Your task to perform on an android device: turn off location history Image 0: 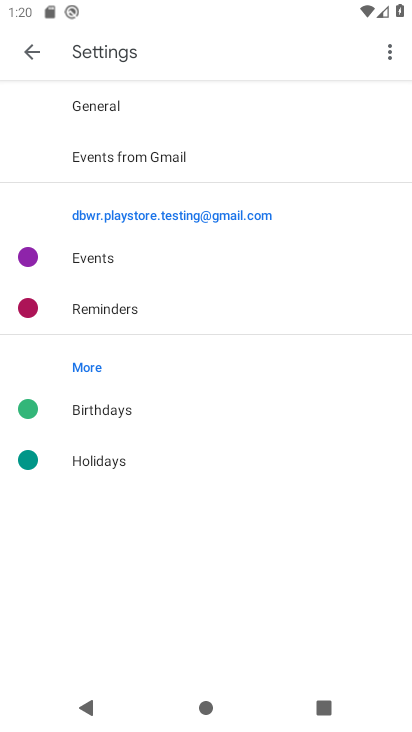
Step 0: press home button
Your task to perform on an android device: turn off location history Image 1: 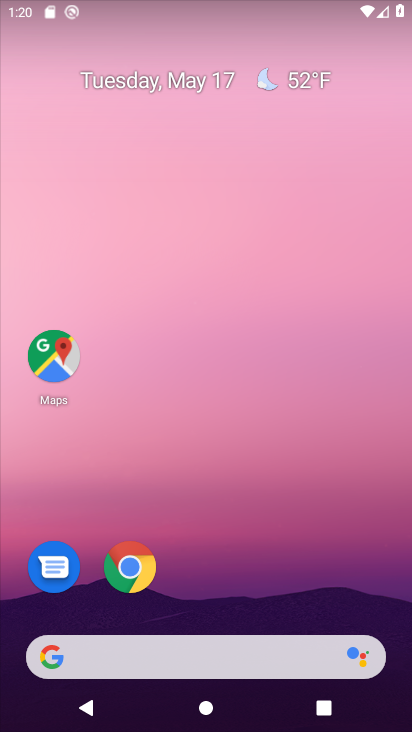
Step 1: drag from (238, 425) to (267, 0)
Your task to perform on an android device: turn off location history Image 2: 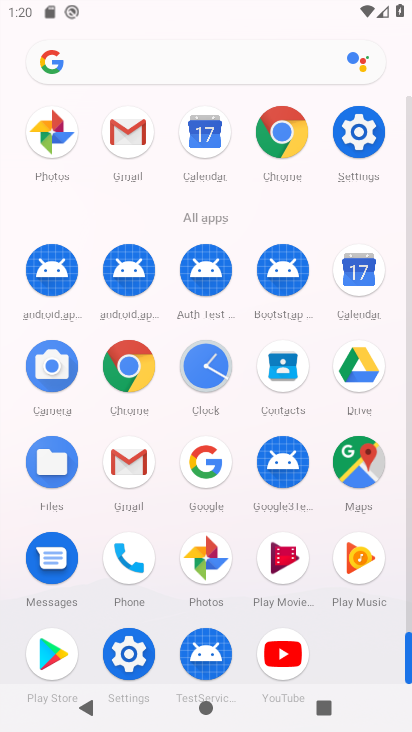
Step 2: click (354, 134)
Your task to perform on an android device: turn off location history Image 3: 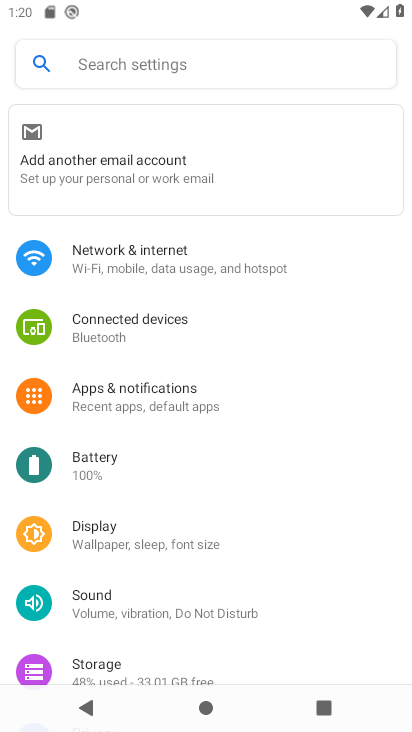
Step 3: drag from (165, 376) to (183, 324)
Your task to perform on an android device: turn off location history Image 4: 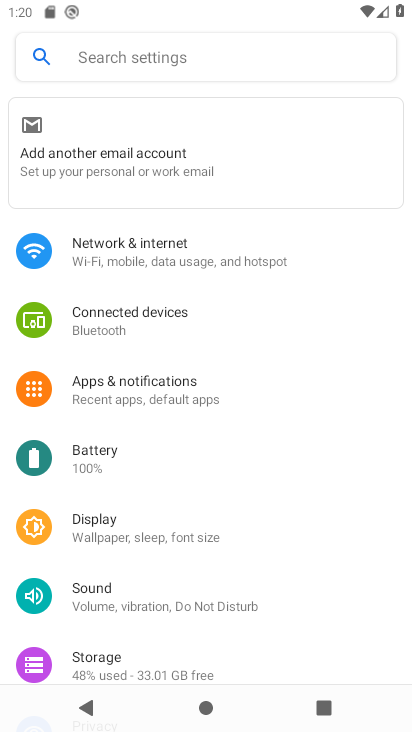
Step 4: drag from (102, 328) to (102, 159)
Your task to perform on an android device: turn off location history Image 5: 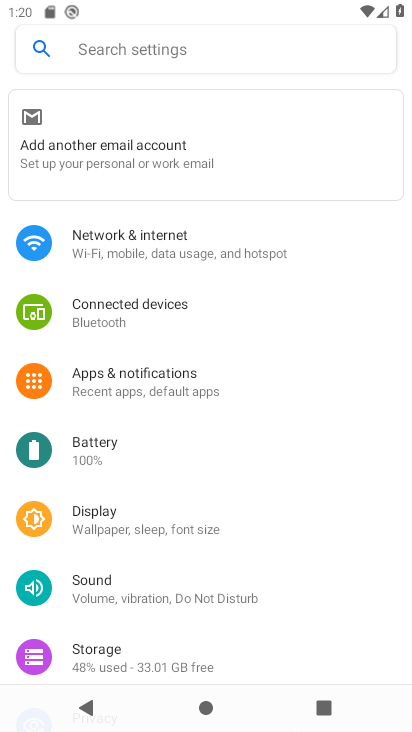
Step 5: drag from (136, 294) to (149, 210)
Your task to perform on an android device: turn off location history Image 6: 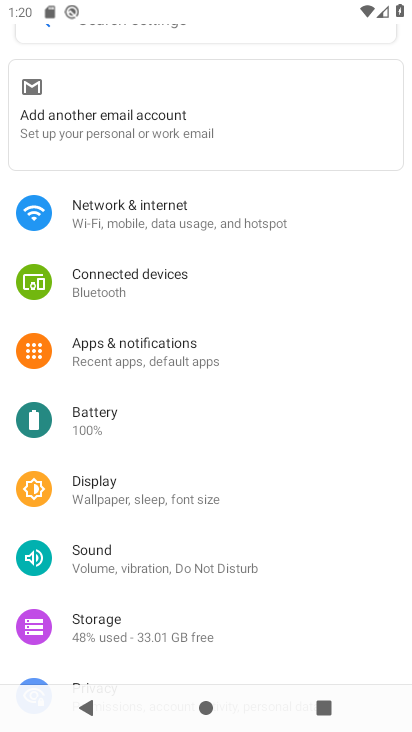
Step 6: drag from (143, 545) to (227, 164)
Your task to perform on an android device: turn off location history Image 7: 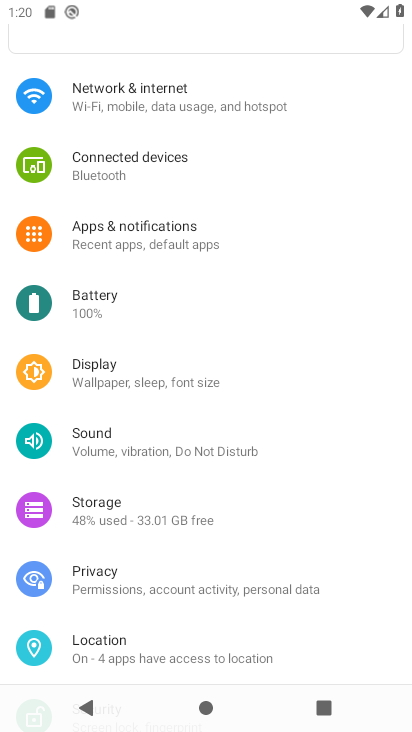
Step 7: click (110, 652)
Your task to perform on an android device: turn off location history Image 8: 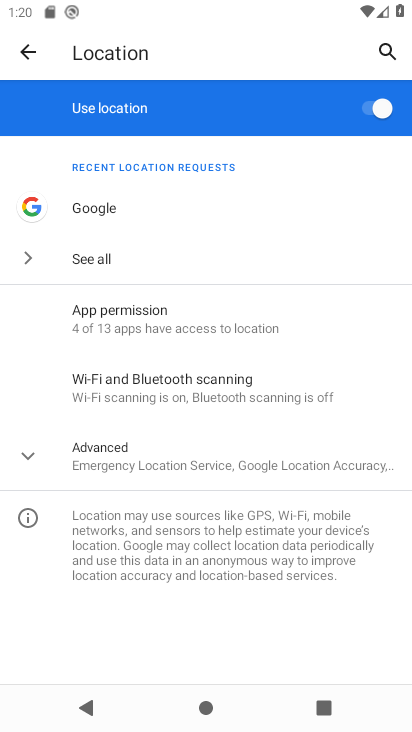
Step 8: click (78, 467)
Your task to perform on an android device: turn off location history Image 9: 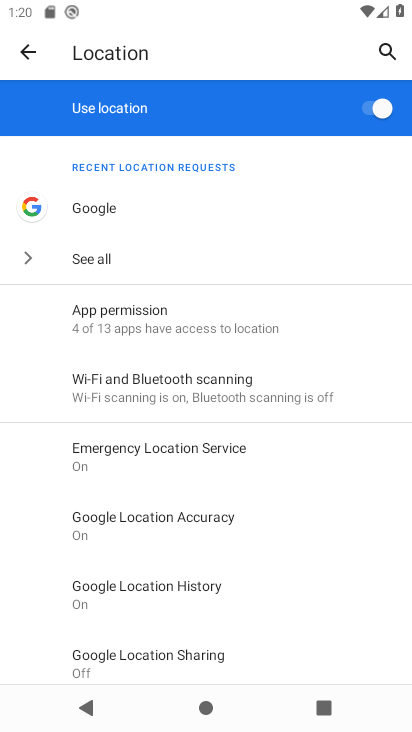
Step 9: click (157, 596)
Your task to perform on an android device: turn off location history Image 10: 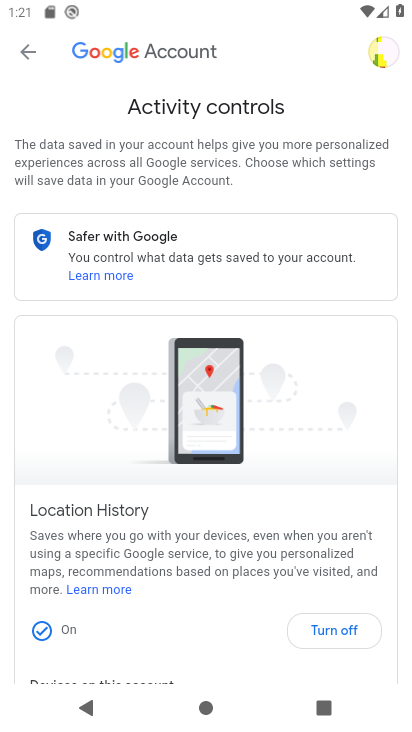
Step 10: click (325, 630)
Your task to perform on an android device: turn off location history Image 11: 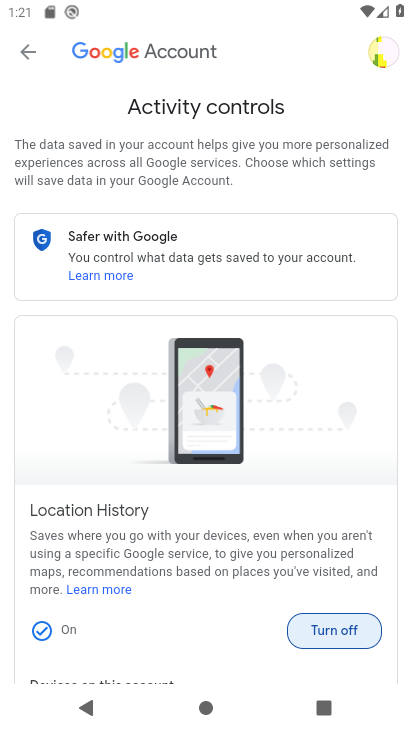
Step 11: click (328, 633)
Your task to perform on an android device: turn off location history Image 12: 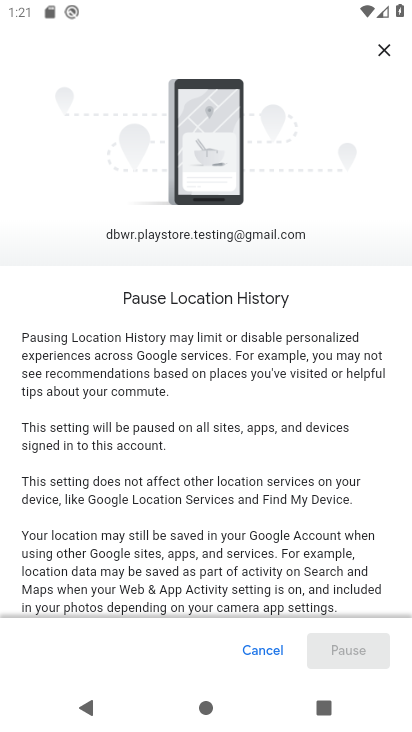
Step 12: drag from (265, 581) to (285, 55)
Your task to perform on an android device: turn off location history Image 13: 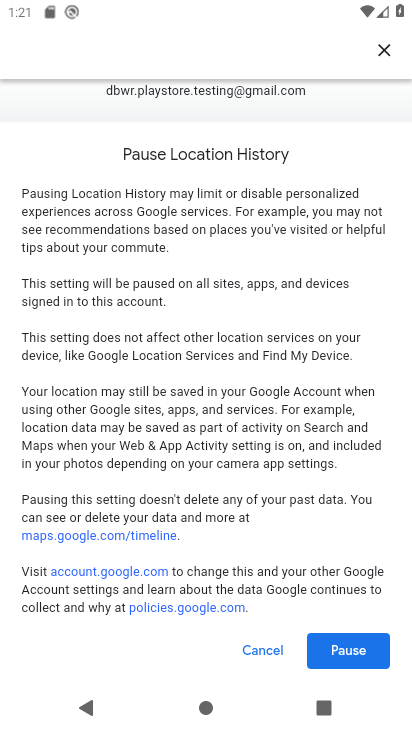
Step 13: click (355, 640)
Your task to perform on an android device: turn off location history Image 14: 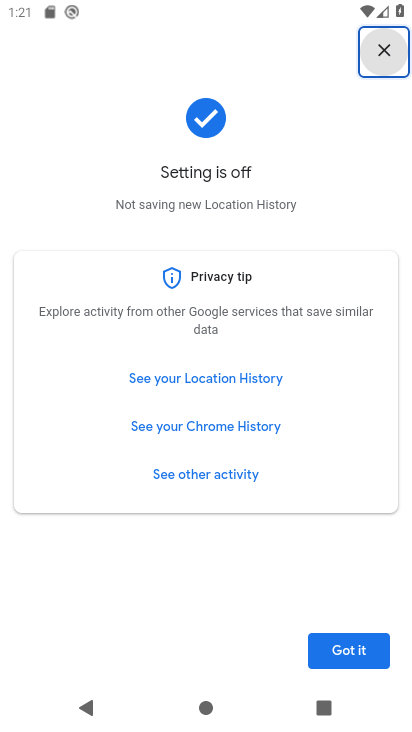
Step 14: click (336, 649)
Your task to perform on an android device: turn off location history Image 15: 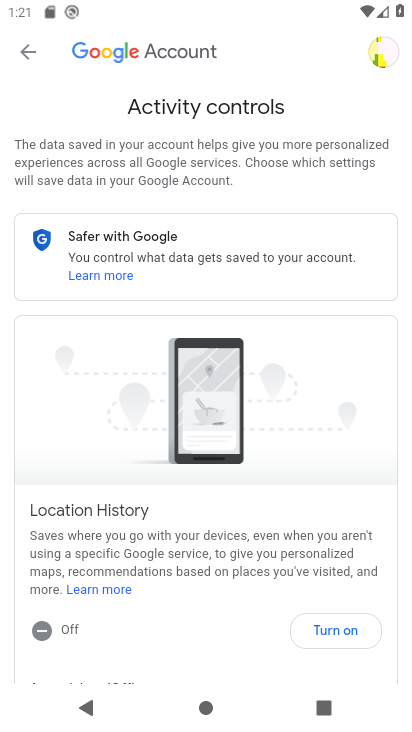
Step 15: task complete